Your task to perform on an android device: Is it going to rain today? Image 0: 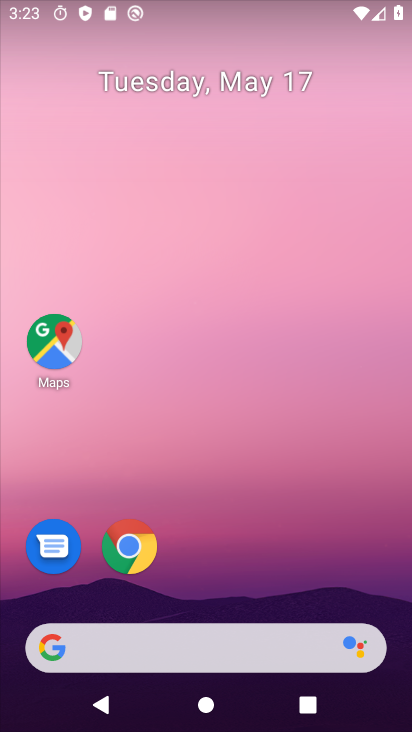
Step 0: drag from (229, 674) to (248, 129)
Your task to perform on an android device: Is it going to rain today? Image 1: 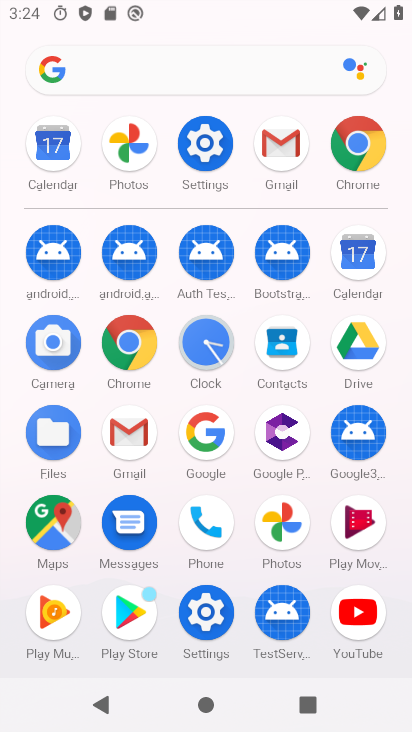
Step 1: click (205, 444)
Your task to perform on an android device: Is it going to rain today? Image 2: 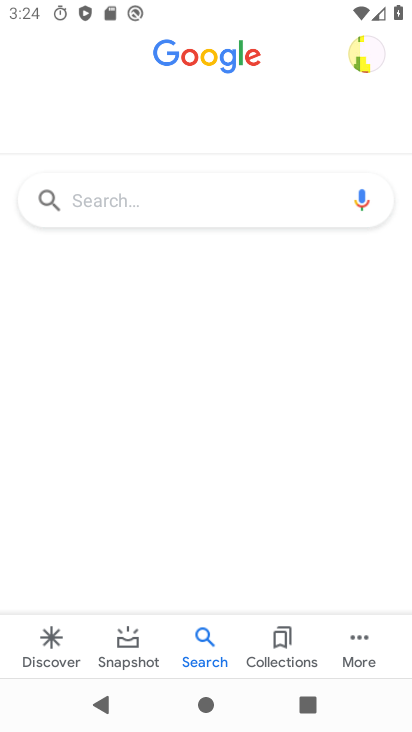
Step 2: click (140, 200)
Your task to perform on an android device: Is it going to rain today? Image 3: 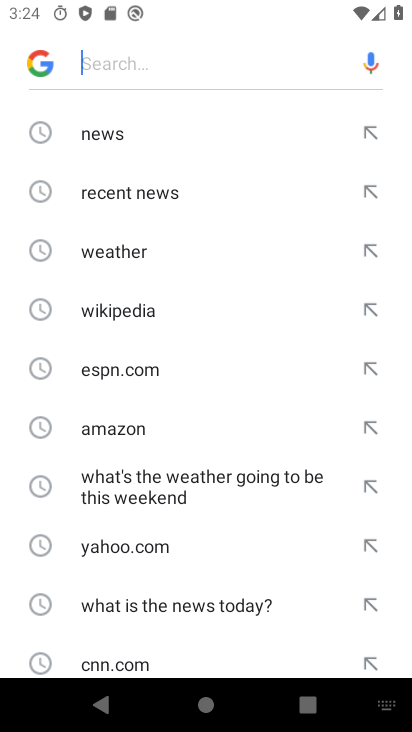
Step 3: click (156, 258)
Your task to perform on an android device: Is it going to rain today? Image 4: 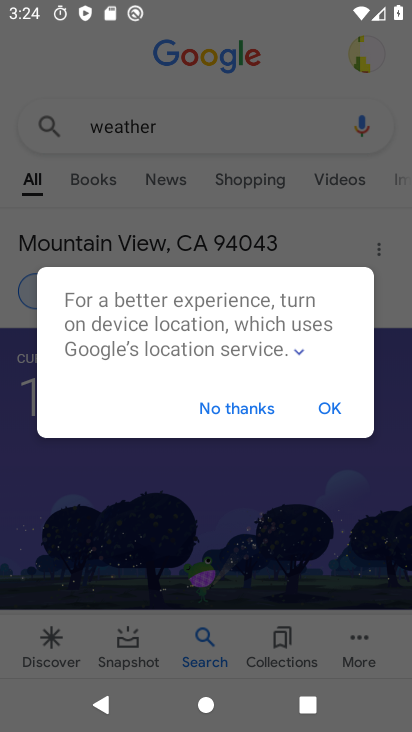
Step 4: click (248, 412)
Your task to perform on an android device: Is it going to rain today? Image 5: 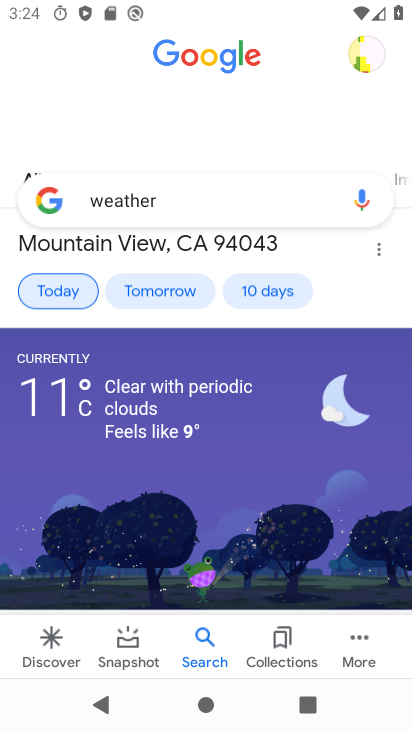
Step 5: task complete